Your task to perform on an android device: uninstall "Google Drive" Image 0: 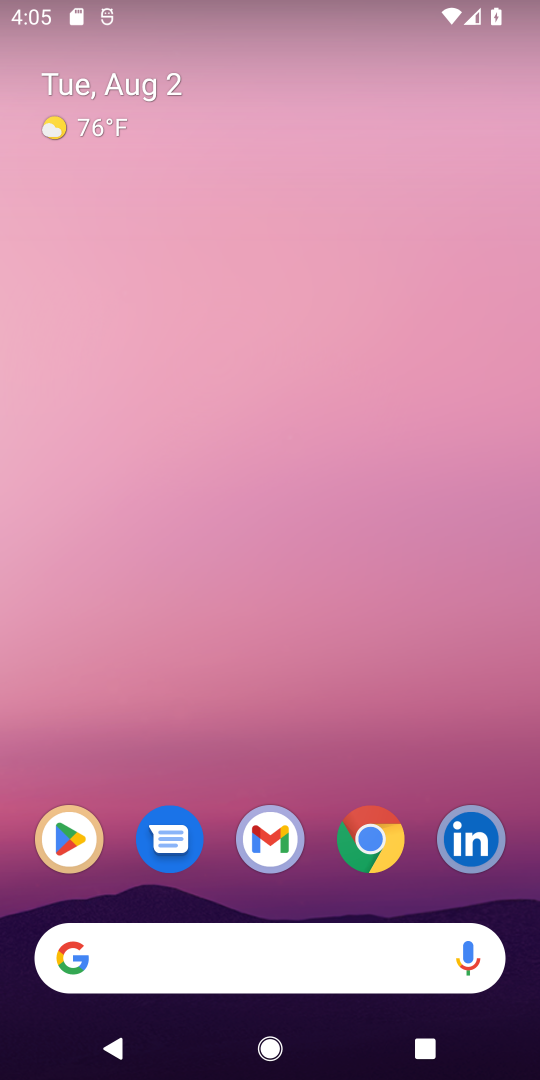
Step 0: task impossible